Your task to perform on an android device: uninstall "Facebook" Image 0: 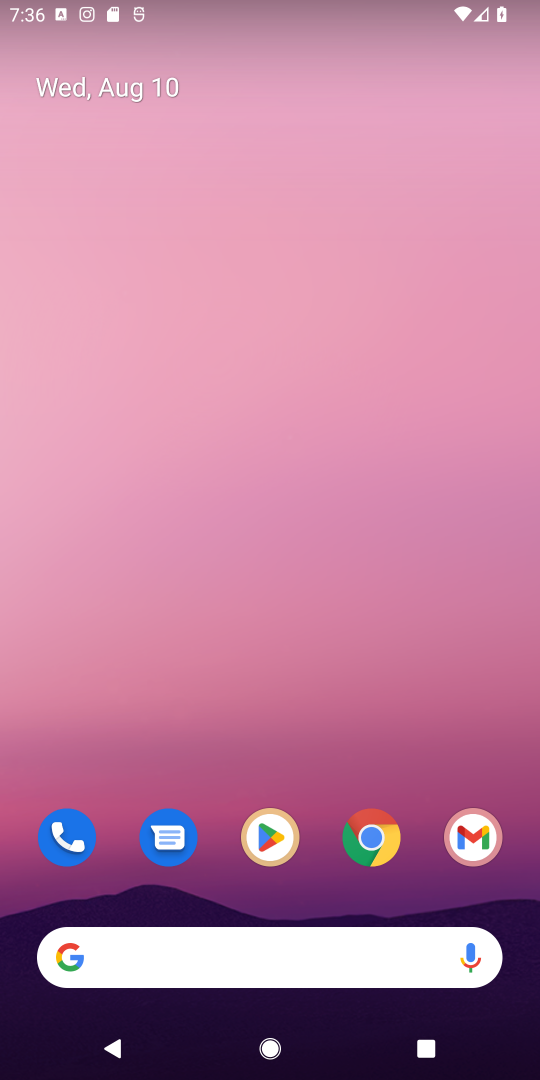
Step 0: click (262, 818)
Your task to perform on an android device: uninstall "Facebook" Image 1: 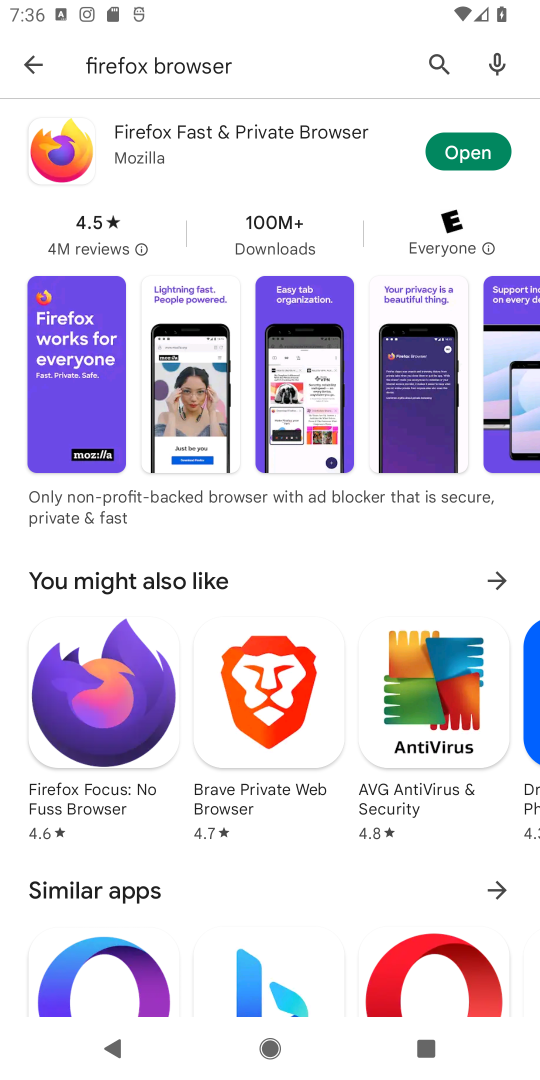
Step 1: click (442, 62)
Your task to perform on an android device: uninstall "Facebook" Image 2: 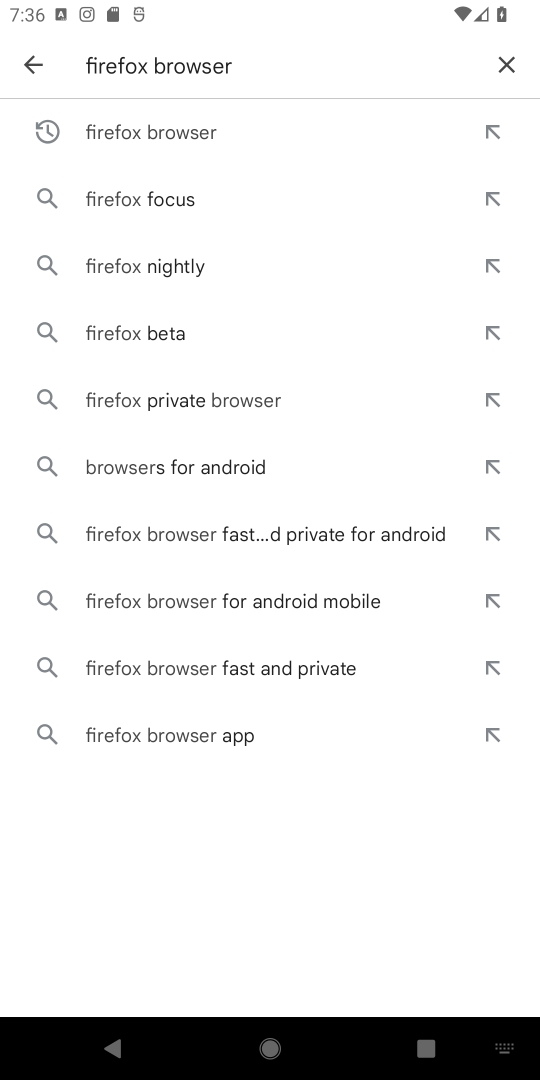
Step 2: click (504, 65)
Your task to perform on an android device: uninstall "Facebook" Image 3: 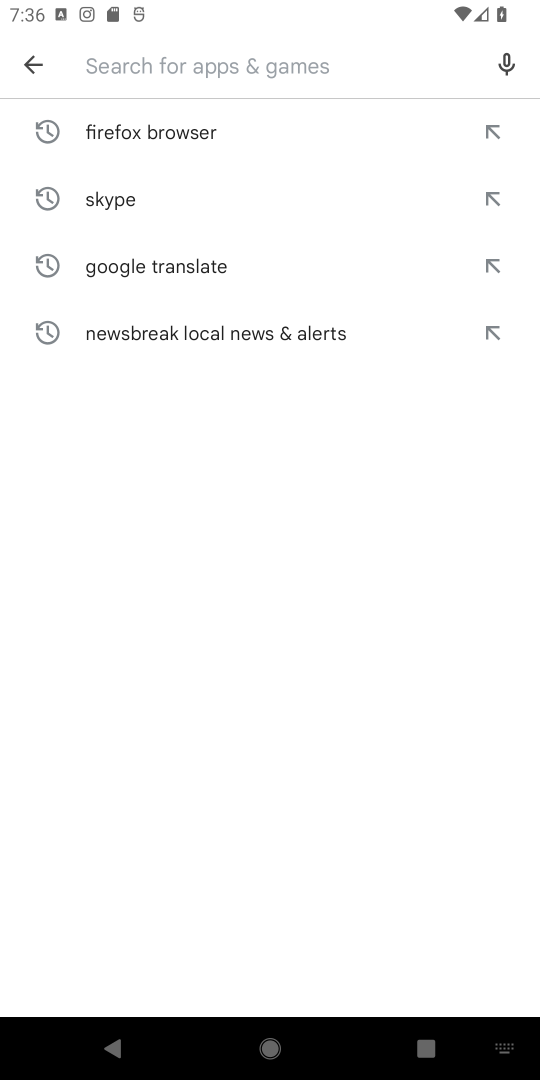
Step 3: type "Facebook"
Your task to perform on an android device: uninstall "Facebook" Image 4: 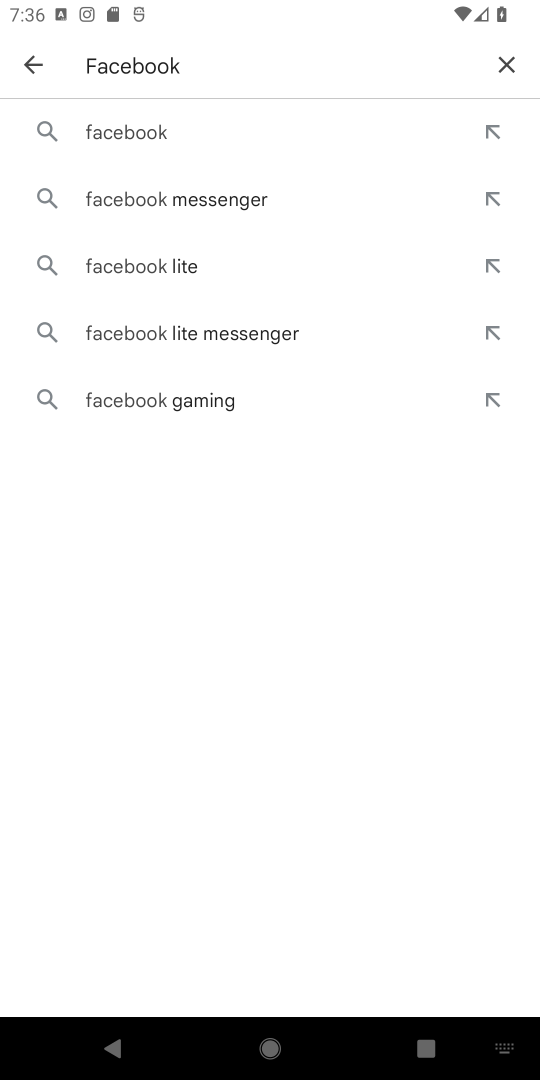
Step 4: click (136, 129)
Your task to perform on an android device: uninstall "Facebook" Image 5: 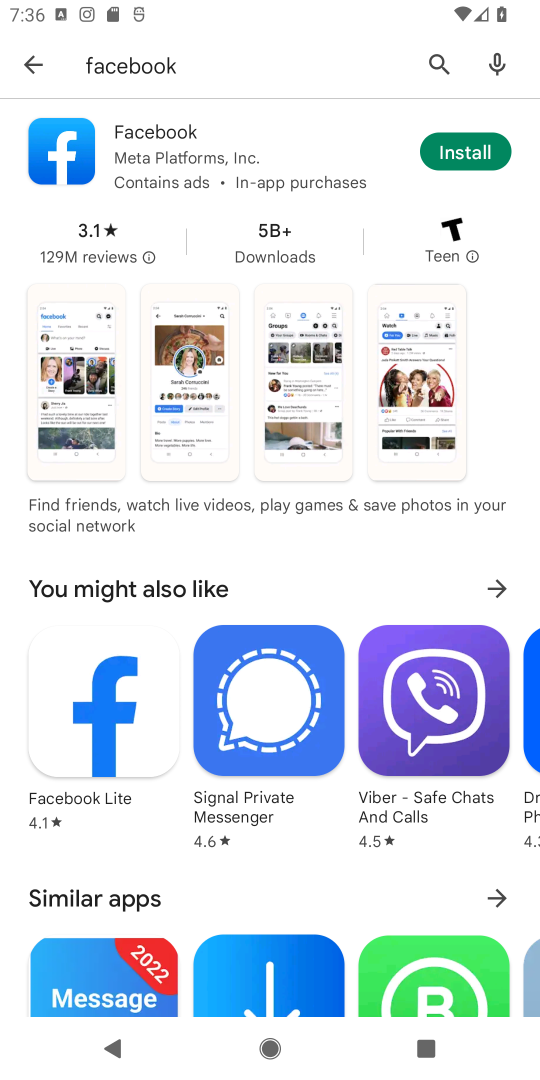
Step 5: task complete